Your task to perform on an android device: open a bookmark in the chrome app Image 0: 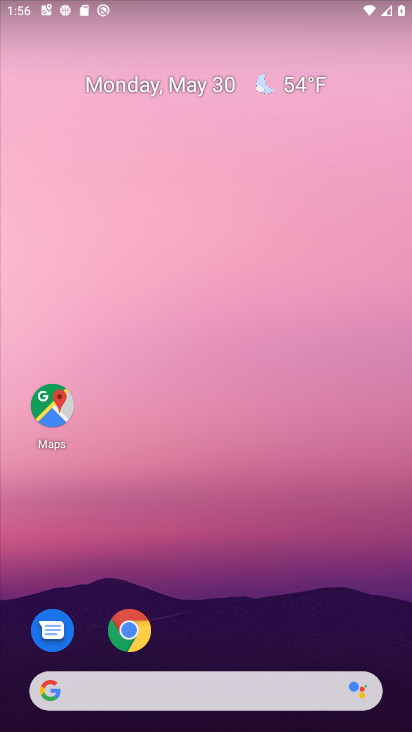
Step 0: press home button
Your task to perform on an android device: open a bookmark in the chrome app Image 1: 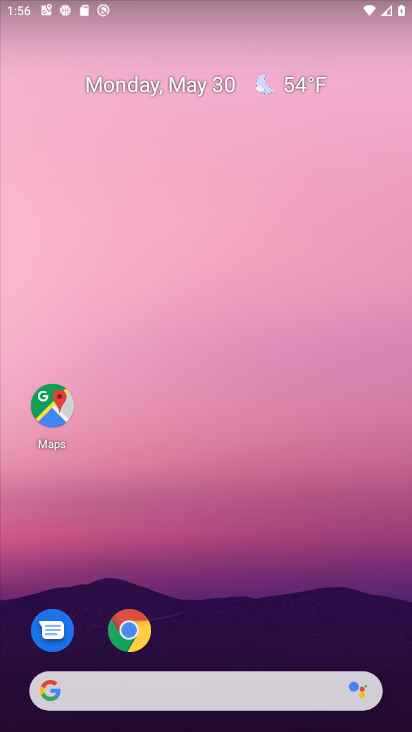
Step 1: click (120, 633)
Your task to perform on an android device: open a bookmark in the chrome app Image 2: 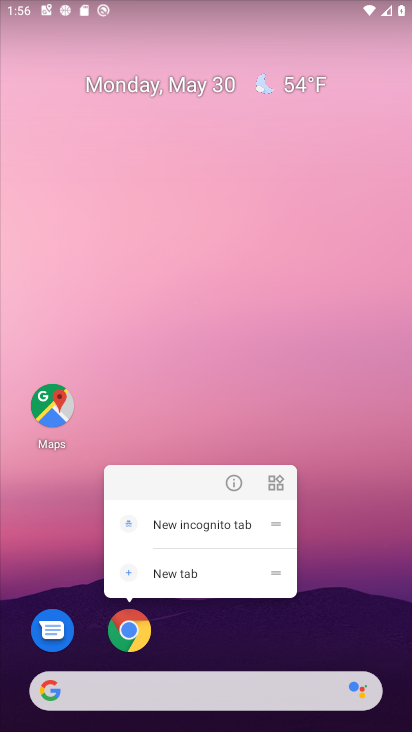
Step 2: click (130, 634)
Your task to perform on an android device: open a bookmark in the chrome app Image 3: 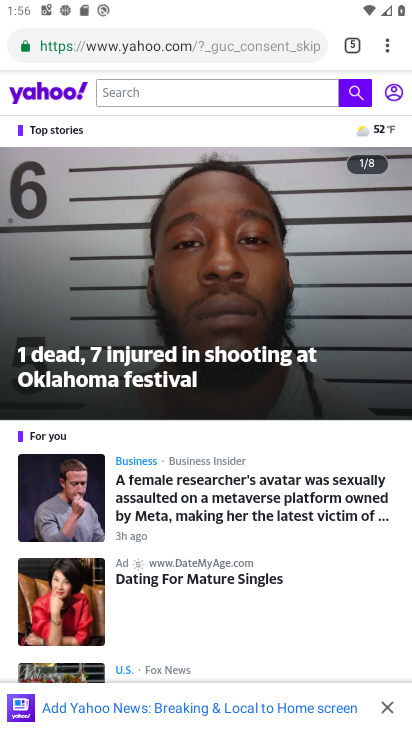
Step 3: task complete